Your task to perform on an android device: turn pop-ups on in chrome Image 0: 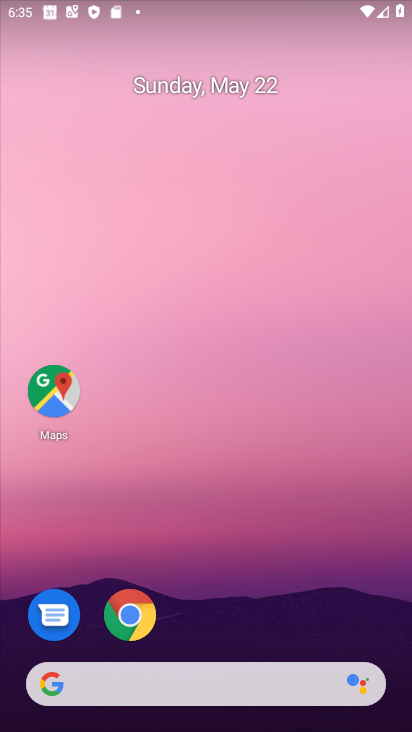
Step 0: click (136, 609)
Your task to perform on an android device: turn pop-ups on in chrome Image 1: 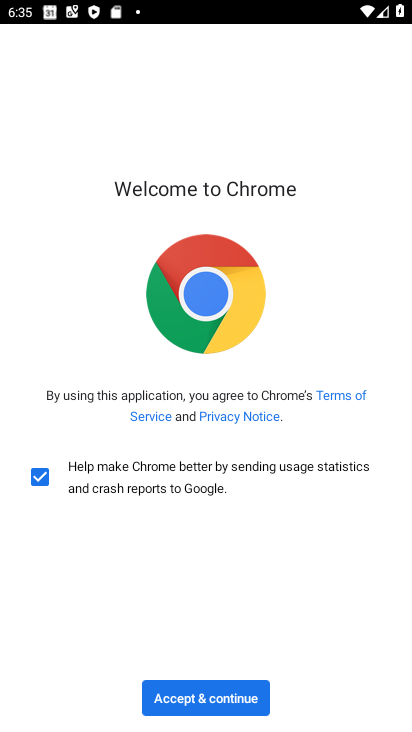
Step 1: click (192, 695)
Your task to perform on an android device: turn pop-ups on in chrome Image 2: 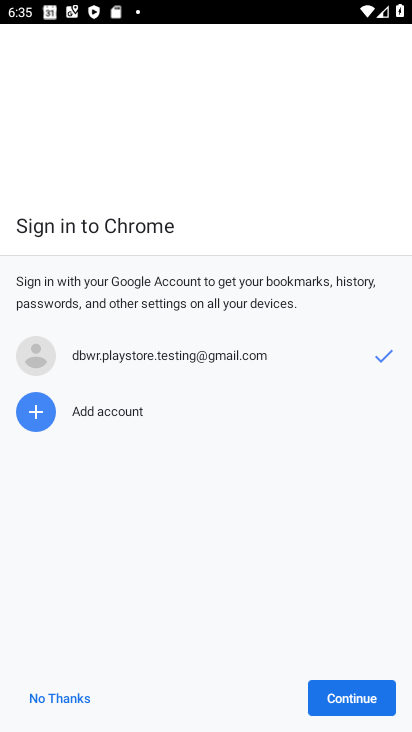
Step 2: click (363, 700)
Your task to perform on an android device: turn pop-ups on in chrome Image 3: 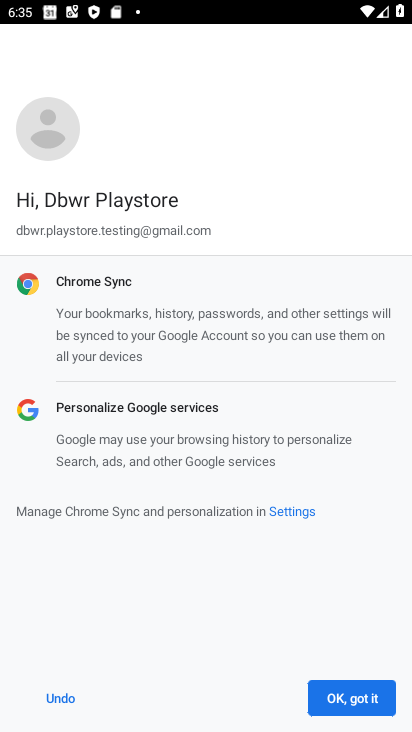
Step 3: click (363, 700)
Your task to perform on an android device: turn pop-ups on in chrome Image 4: 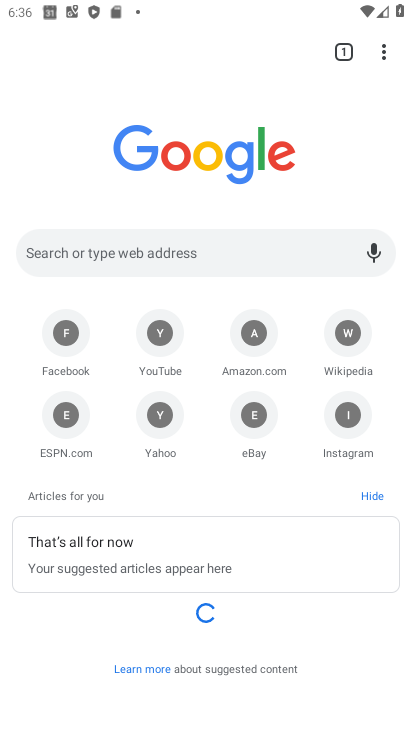
Step 4: click (388, 50)
Your task to perform on an android device: turn pop-ups on in chrome Image 5: 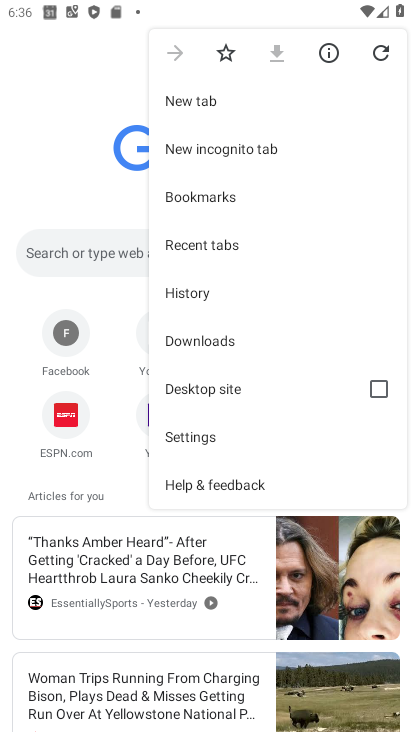
Step 5: click (198, 432)
Your task to perform on an android device: turn pop-ups on in chrome Image 6: 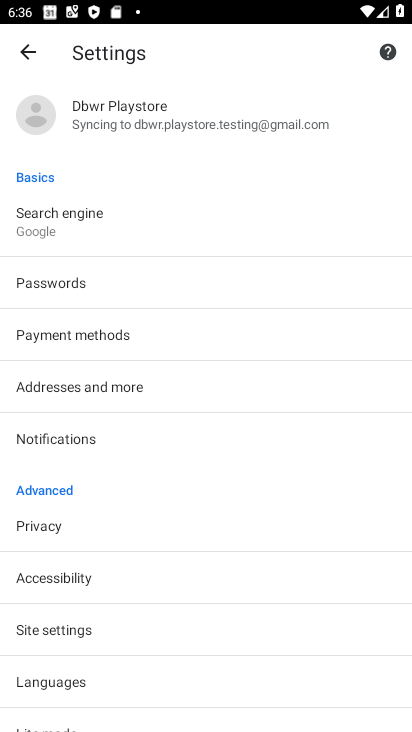
Step 6: drag from (260, 440) to (159, 97)
Your task to perform on an android device: turn pop-ups on in chrome Image 7: 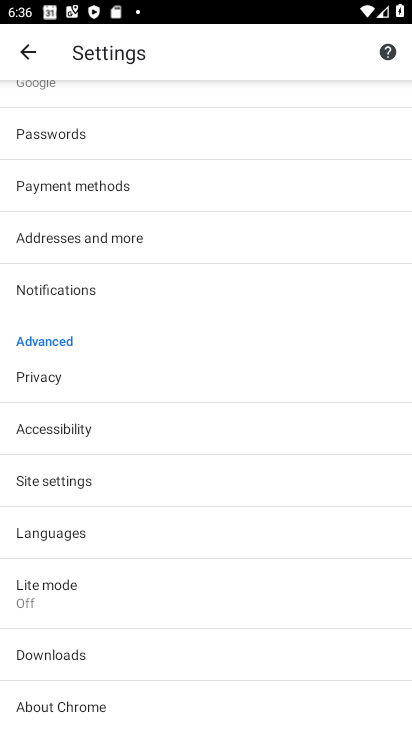
Step 7: click (52, 479)
Your task to perform on an android device: turn pop-ups on in chrome Image 8: 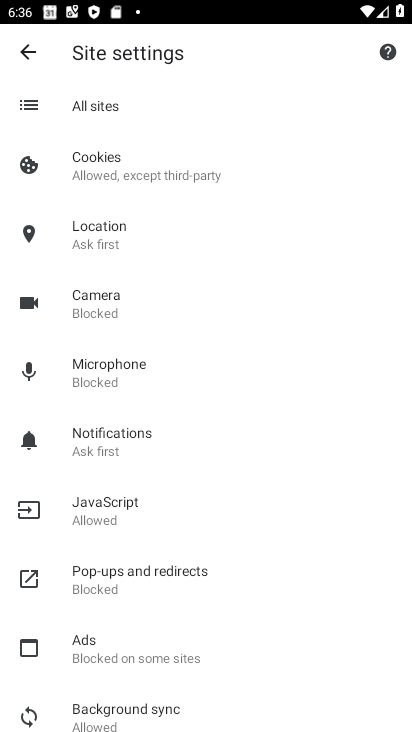
Step 8: click (121, 571)
Your task to perform on an android device: turn pop-ups on in chrome Image 9: 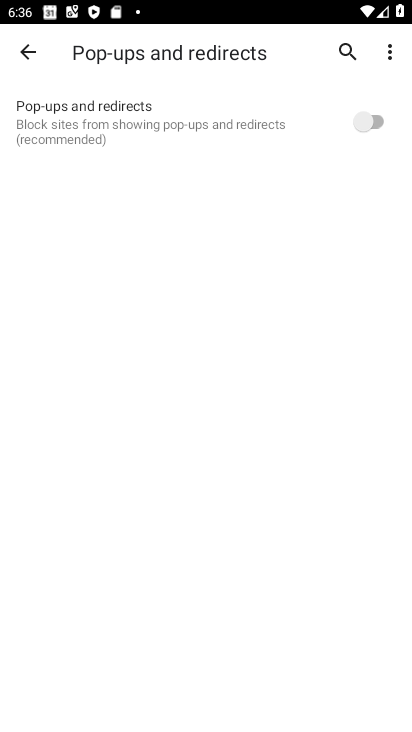
Step 9: click (371, 126)
Your task to perform on an android device: turn pop-ups on in chrome Image 10: 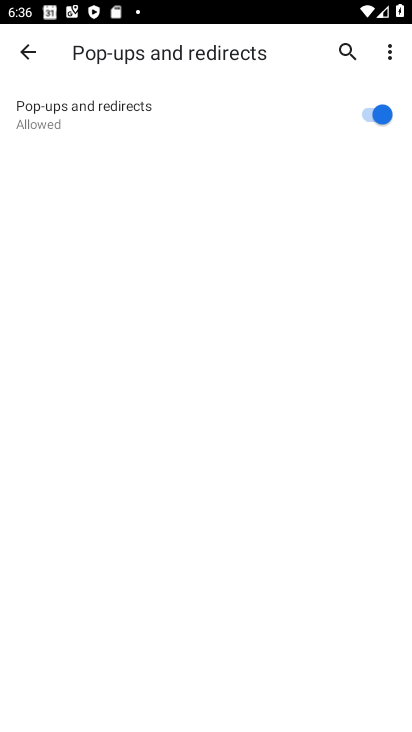
Step 10: task complete